Your task to perform on an android device: turn off airplane mode Image 0: 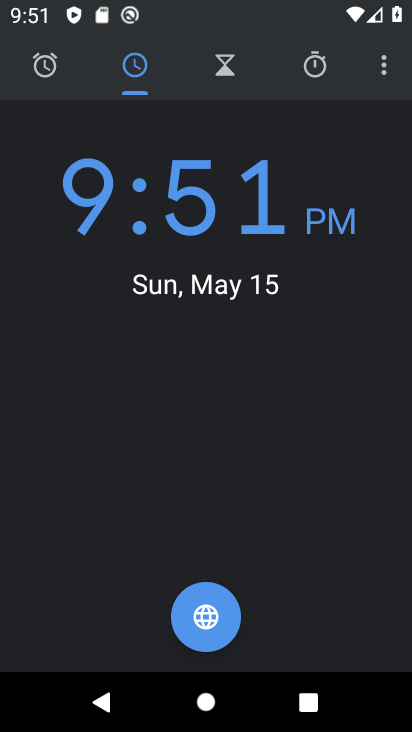
Step 0: press home button
Your task to perform on an android device: turn off airplane mode Image 1: 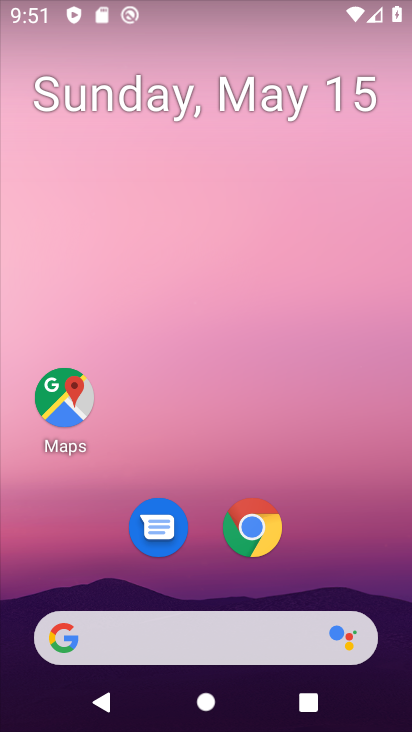
Step 1: drag from (60, 616) to (190, 204)
Your task to perform on an android device: turn off airplane mode Image 2: 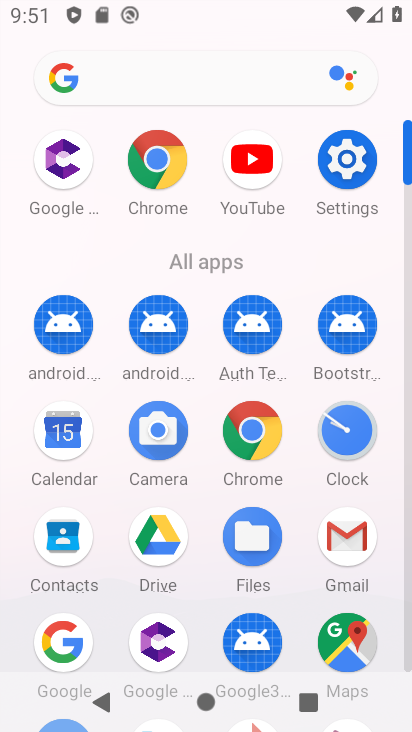
Step 2: drag from (200, 622) to (266, 385)
Your task to perform on an android device: turn off airplane mode Image 3: 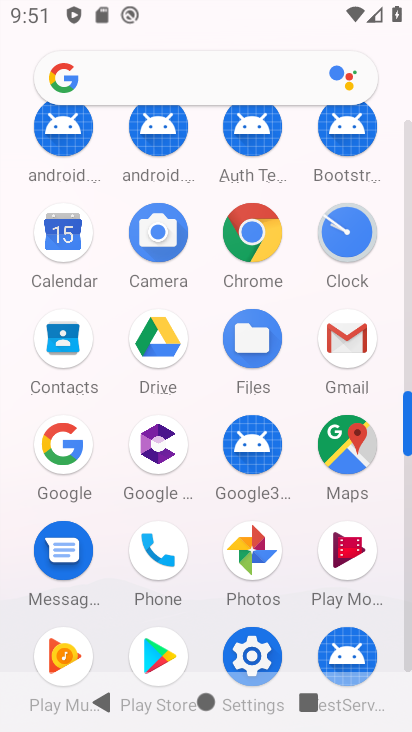
Step 3: click (260, 646)
Your task to perform on an android device: turn off airplane mode Image 4: 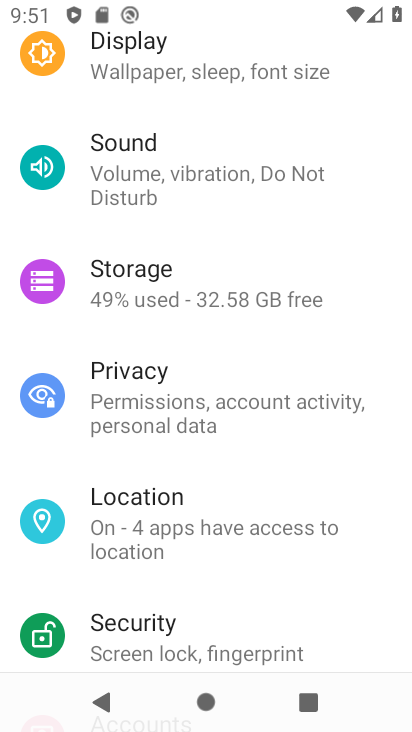
Step 4: drag from (285, 153) to (264, 599)
Your task to perform on an android device: turn off airplane mode Image 5: 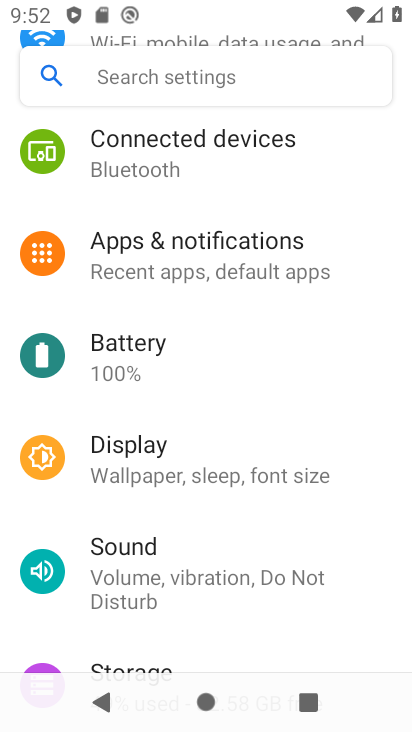
Step 5: drag from (217, 180) to (212, 508)
Your task to perform on an android device: turn off airplane mode Image 6: 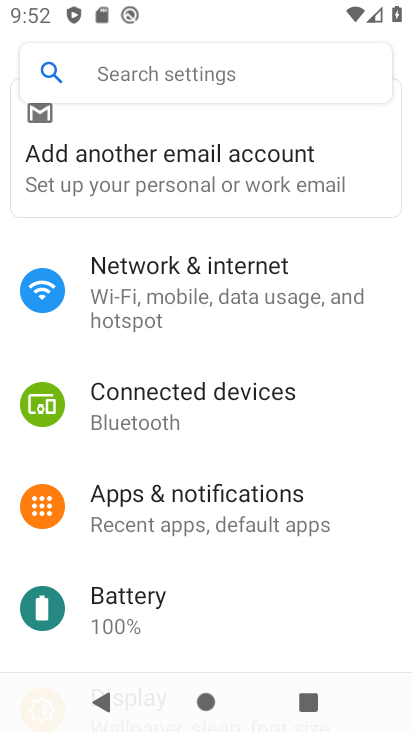
Step 6: click (236, 304)
Your task to perform on an android device: turn off airplane mode Image 7: 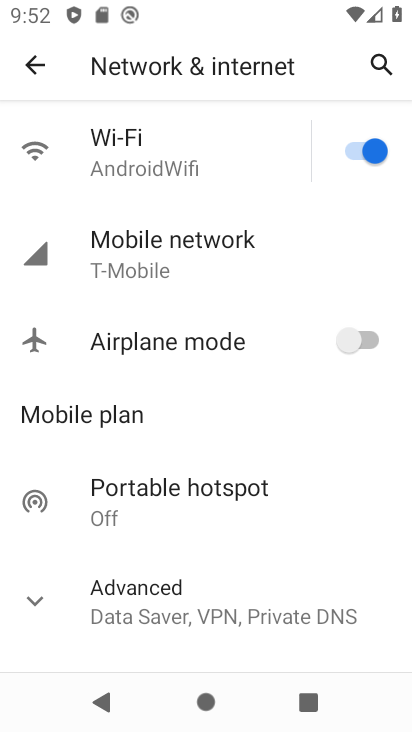
Step 7: task complete